Your task to perform on an android device: turn on location history Image 0: 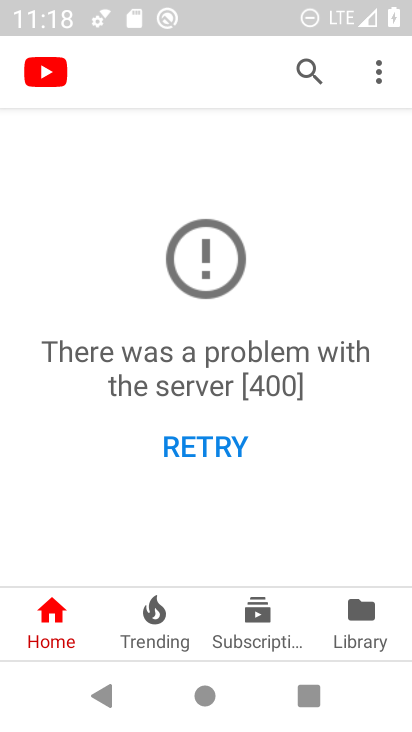
Step 0: press home button
Your task to perform on an android device: turn on location history Image 1: 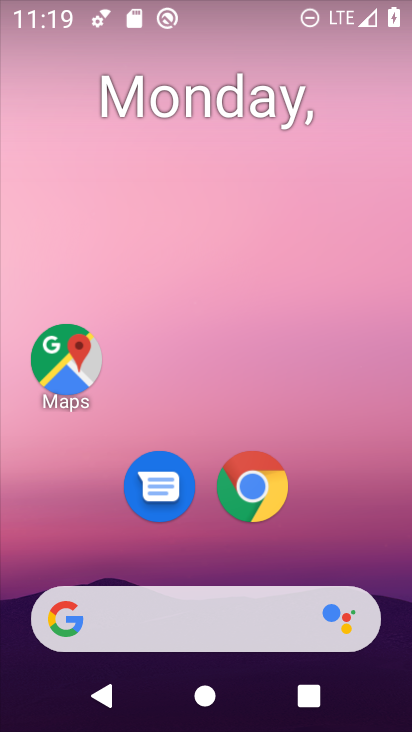
Step 1: drag from (32, 628) to (237, 233)
Your task to perform on an android device: turn on location history Image 2: 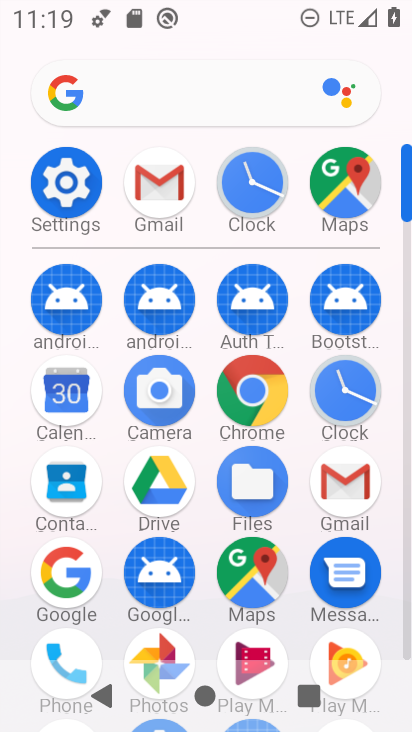
Step 2: click (73, 189)
Your task to perform on an android device: turn on location history Image 3: 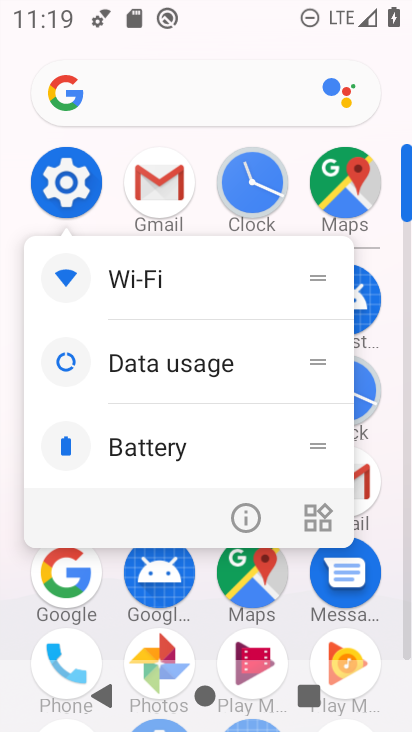
Step 3: click (74, 189)
Your task to perform on an android device: turn on location history Image 4: 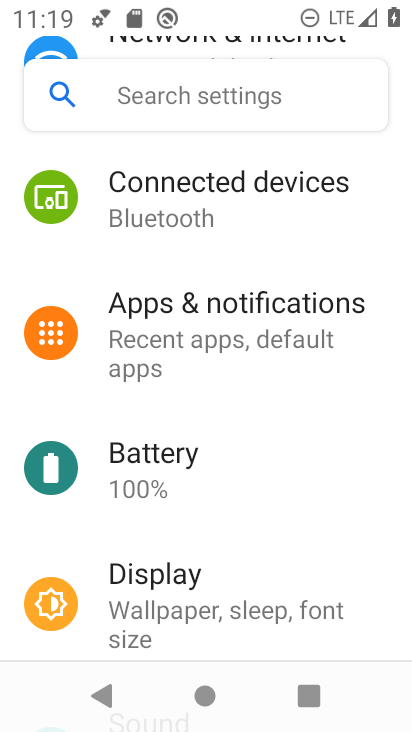
Step 4: drag from (5, 541) to (201, 196)
Your task to perform on an android device: turn on location history Image 5: 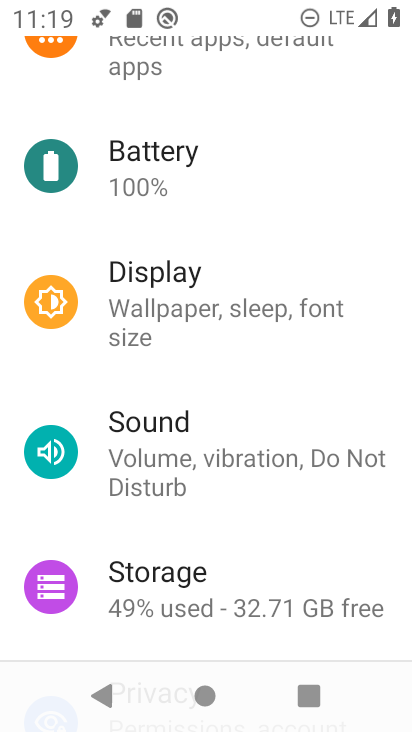
Step 5: drag from (43, 507) to (183, 251)
Your task to perform on an android device: turn on location history Image 6: 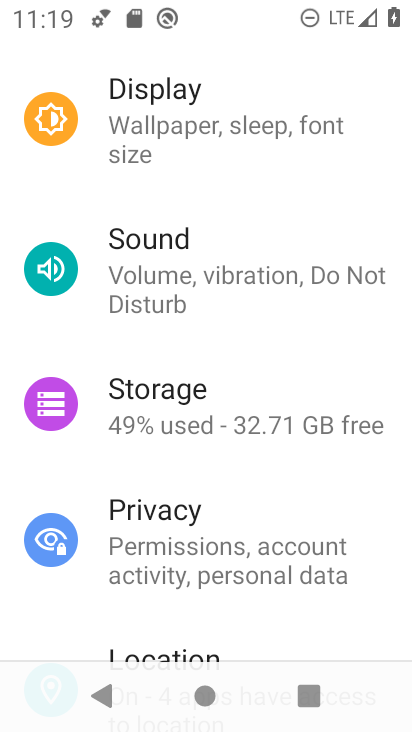
Step 6: drag from (8, 590) to (169, 322)
Your task to perform on an android device: turn on location history Image 7: 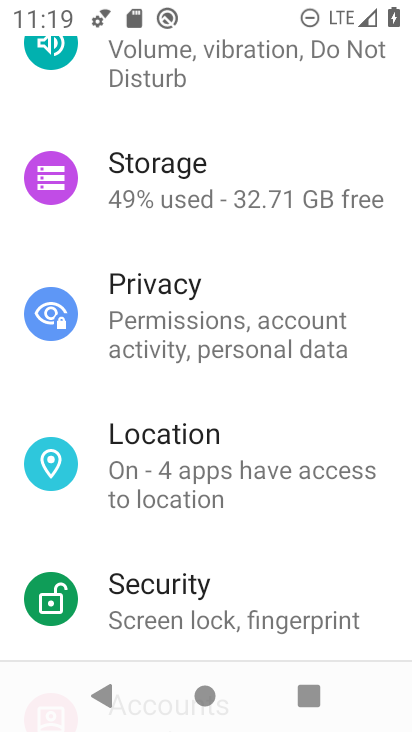
Step 7: click (116, 471)
Your task to perform on an android device: turn on location history Image 8: 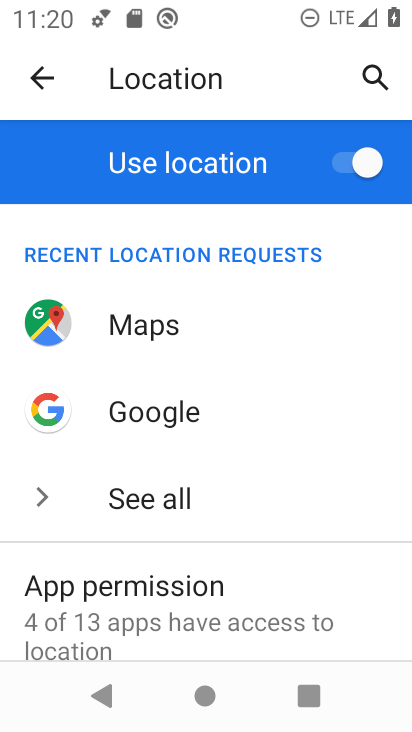
Step 8: drag from (12, 491) to (201, 233)
Your task to perform on an android device: turn on location history Image 9: 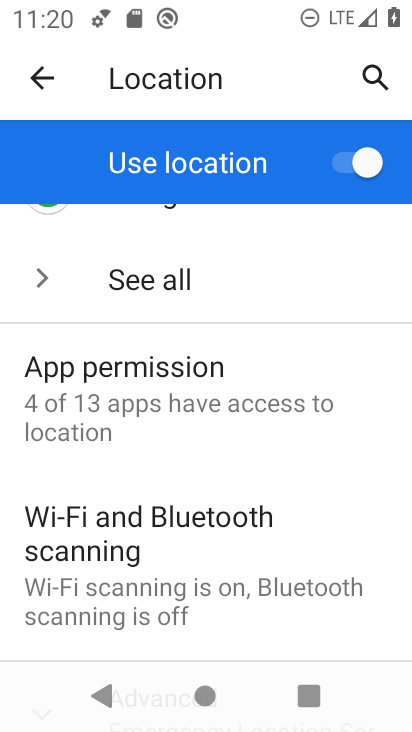
Step 9: drag from (22, 581) to (314, 214)
Your task to perform on an android device: turn on location history Image 10: 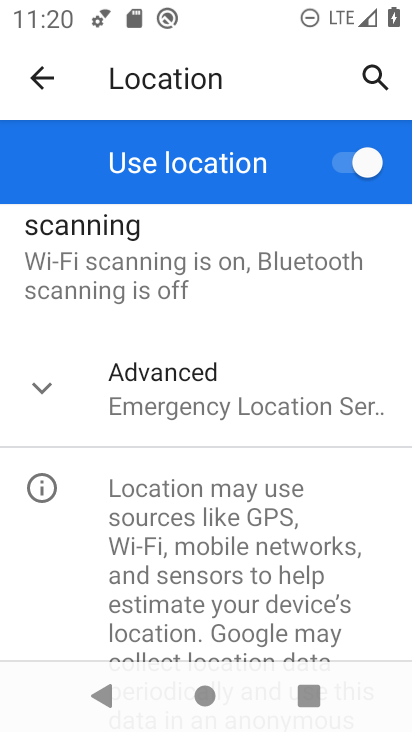
Step 10: click (181, 465)
Your task to perform on an android device: turn on location history Image 11: 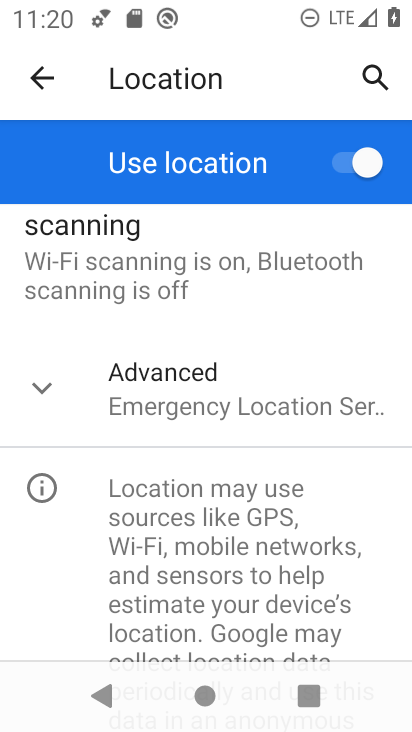
Step 11: click (165, 410)
Your task to perform on an android device: turn on location history Image 12: 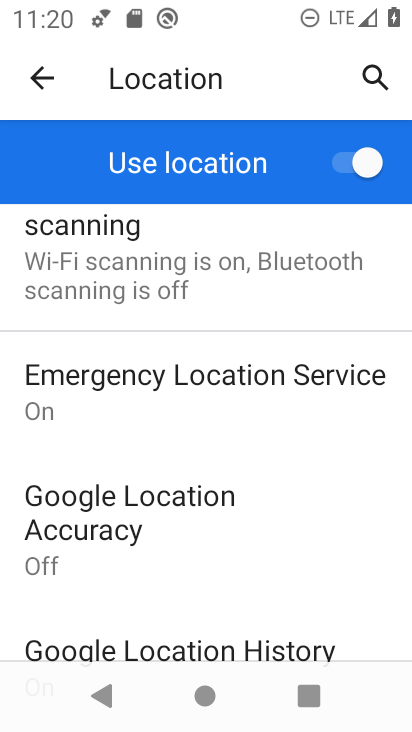
Step 12: drag from (4, 612) to (235, 271)
Your task to perform on an android device: turn on location history Image 13: 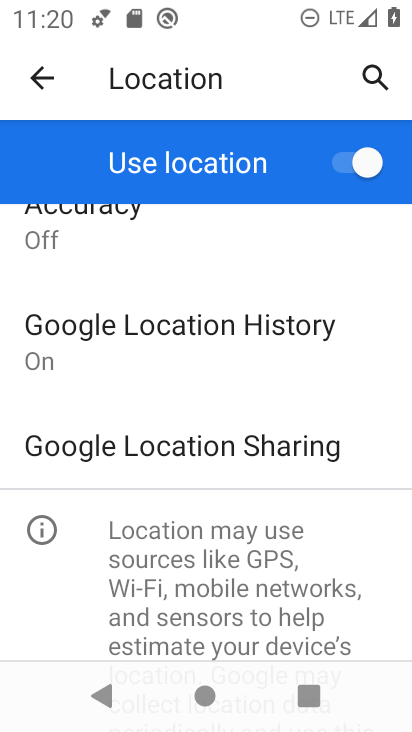
Step 13: click (221, 343)
Your task to perform on an android device: turn on location history Image 14: 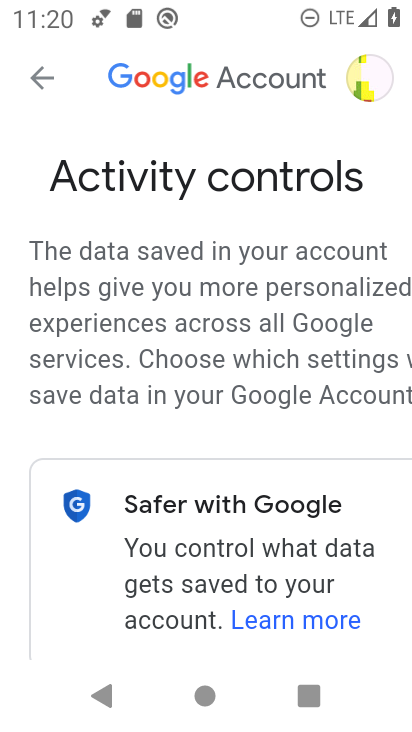
Step 14: drag from (22, 572) to (254, 197)
Your task to perform on an android device: turn on location history Image 15: 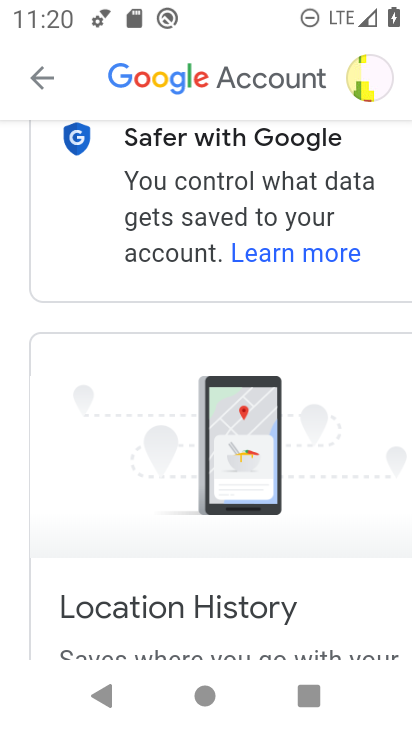
Step 15: drag from (36, 567) to (272, 205)
Your task to perform on an android device: turn on location history Image 16: 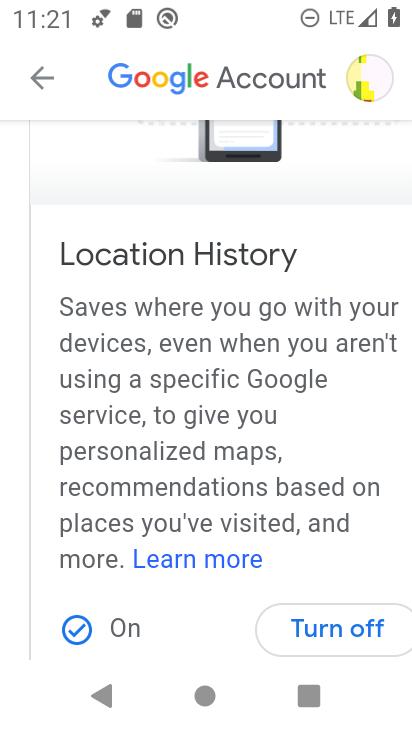
Step 16: click (337, 641)
Your task to perform on an android device: turn on location history Image 17: 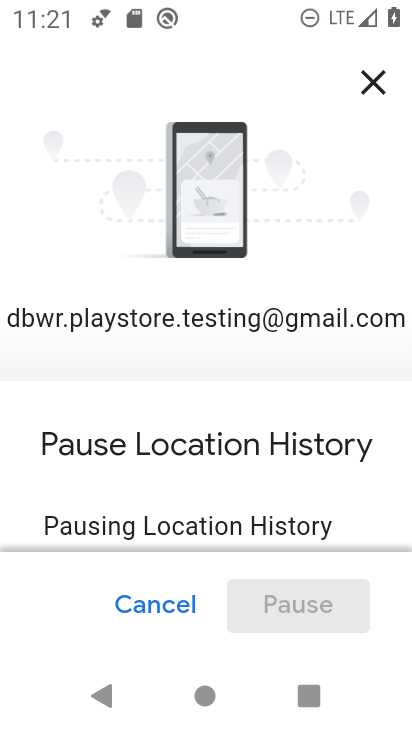
Step 17: drag from (13, 503) to (243, 174)
Your task to perform on an android device: turn on location history Image 18: 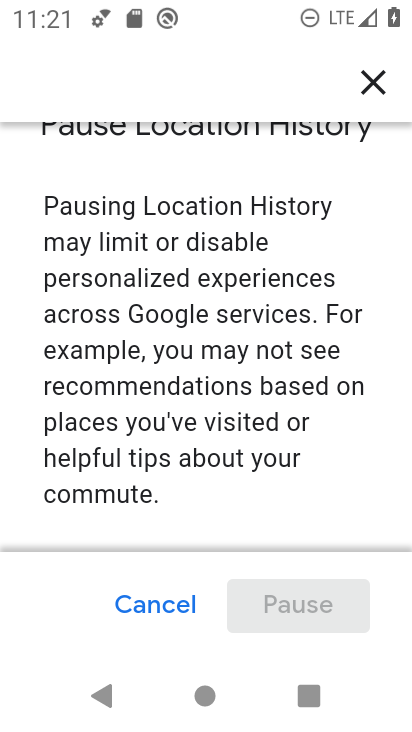
Step 18: drag from (82, 532) to (251, 157)
Your task to perform on an android device: turn on location history Image 19: 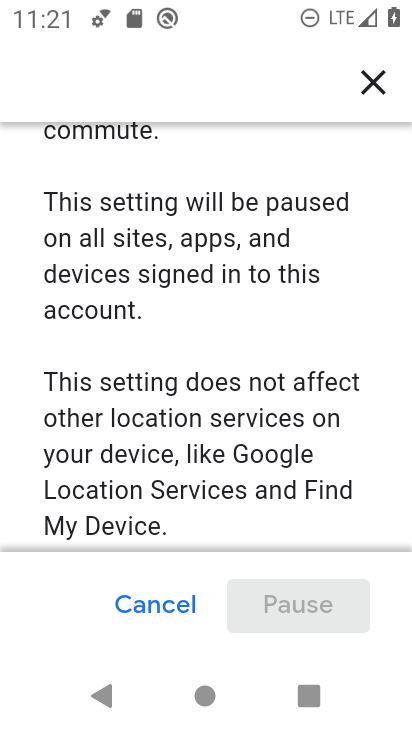
Step 19: drag from (17, 500) to (260, 171)
Your task to perform on an android device: turn on location history Image 20: 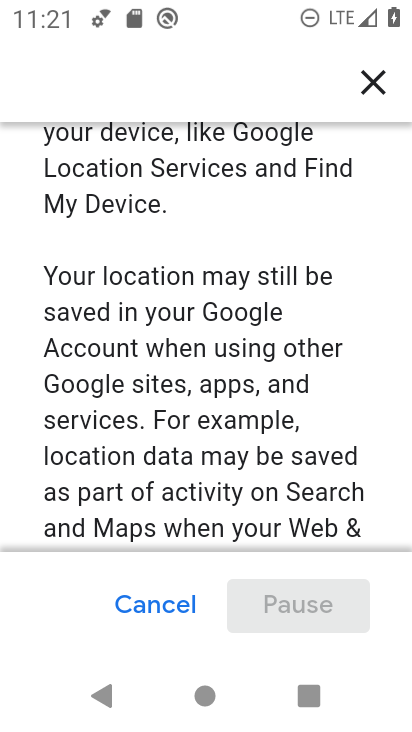
Step 20: drag from (87, 499) to (278, 209)
Your task to perform on an android device: turn on location history Image 21: 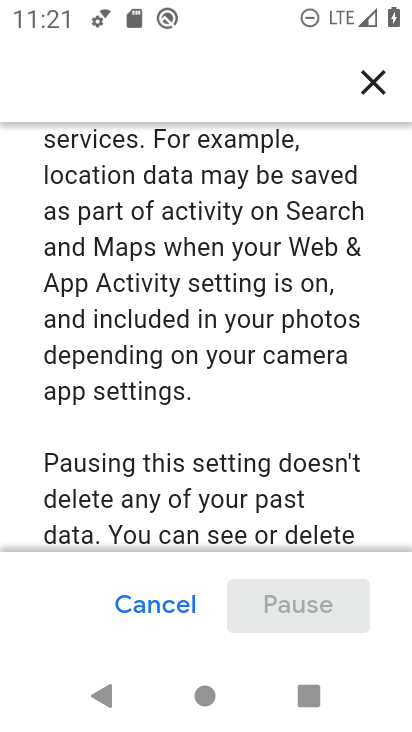
Step 21: drag from (140, 418) to (312, 190)
Your task to perform on an android device: turn on location history Image 22: 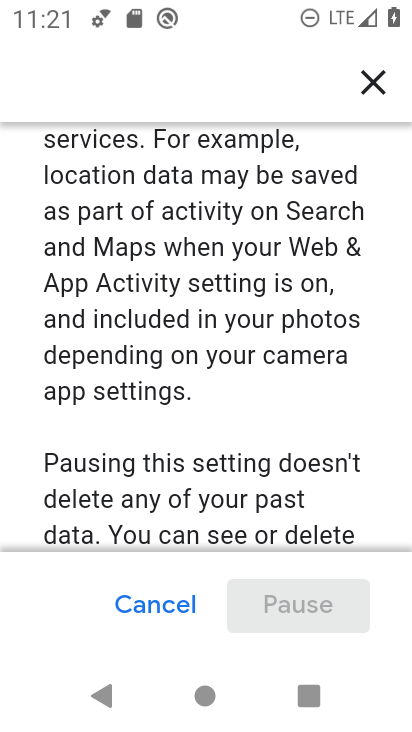
Step 22: drag from (11, 492) to (248, 224)
Your task to perform on an android device: turn on location history Image 23: 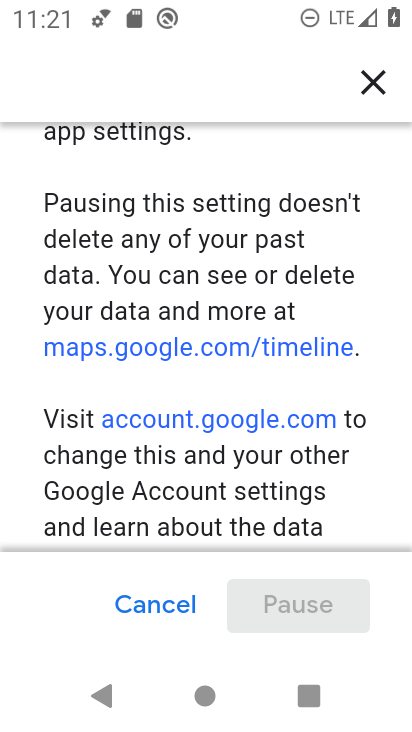
Step 23: drag from (49, 462) to (296, 208)
Your task to perform on an android device: turn on location history Image 24: 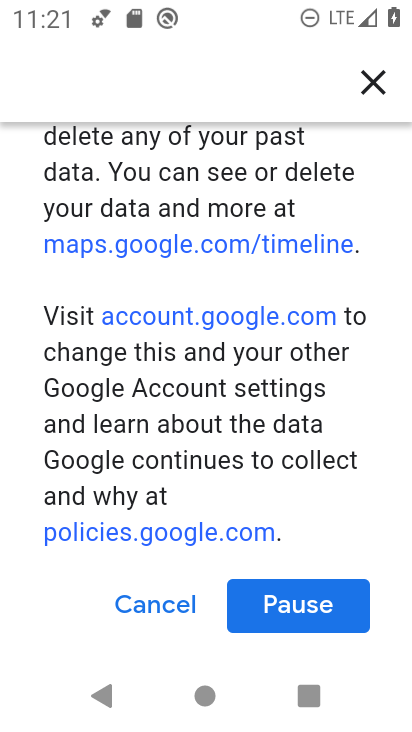
Step 24: click (249, 609)
Your task to perform on an android device: turn on location history Image 25: 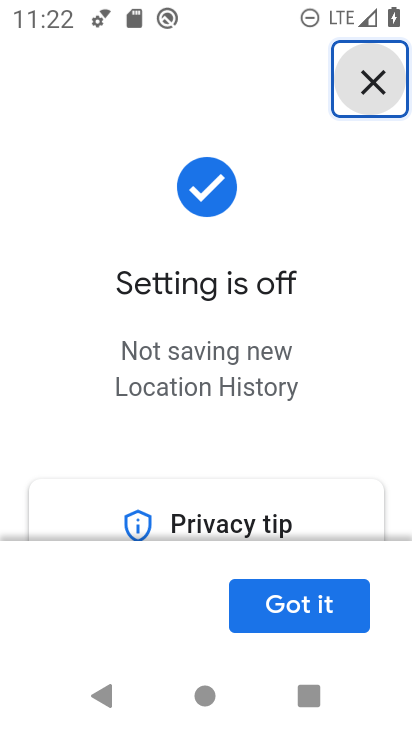
Step 25: click (261, 617)
Your task to perform on an android device: turn on location history Image 26: 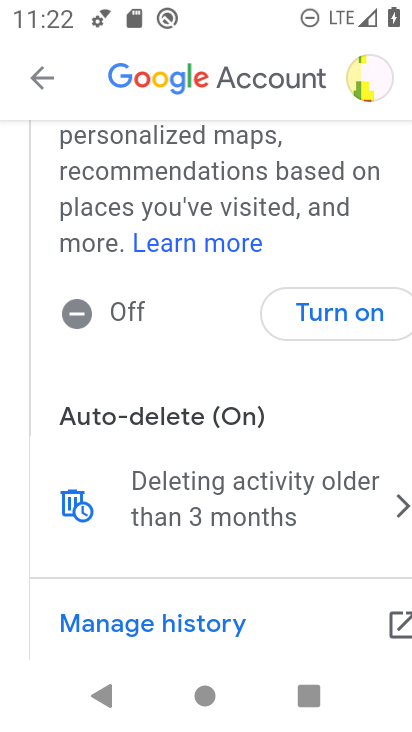
Step 26: task complete